Your task to perform on an android device: open device folders in google photos Image 0: 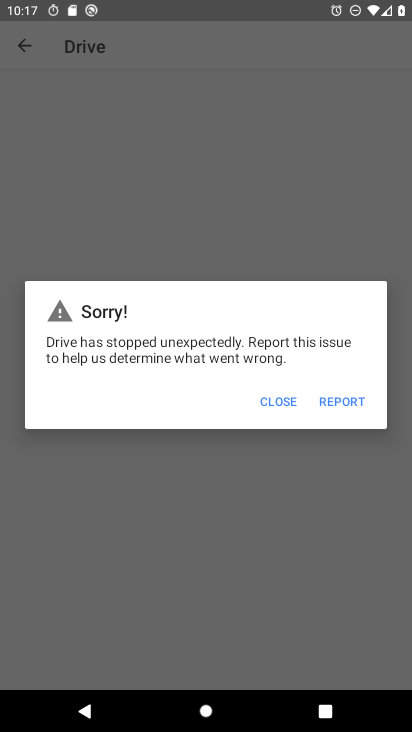
Step 0: press home button
Your task to perform on an android device: open device folders in google photos Image 1: 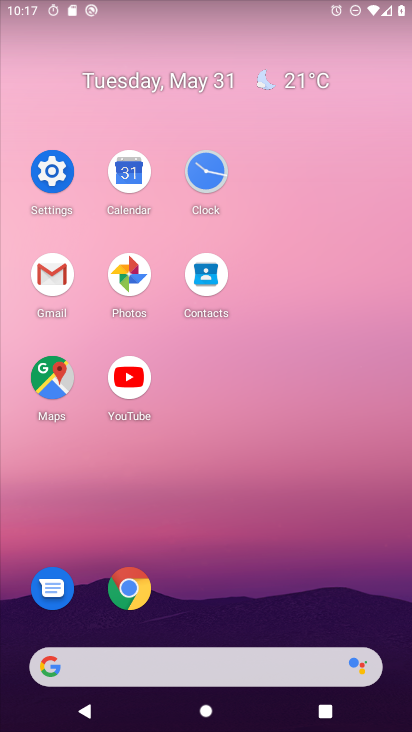
Step 1: click (133, 279)
Your task to perform on an android device: open device folders in google photos Image 2: 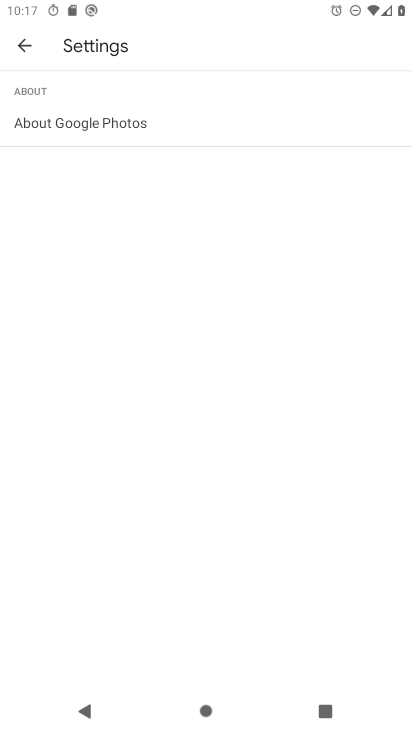
Step 2: click (22, 35)
Your task to perform on an android device: open device folders in google photos Image 3: 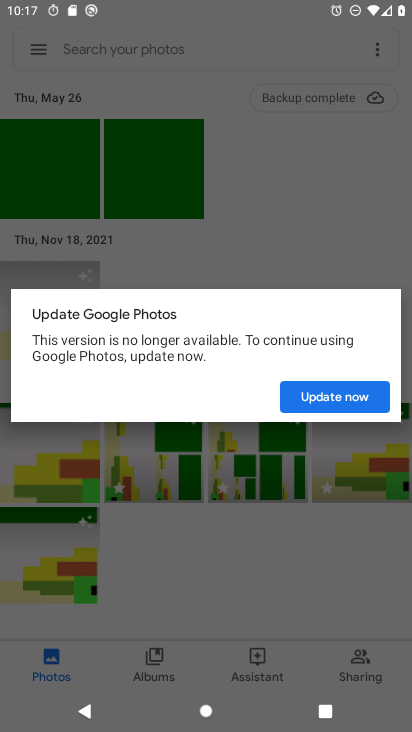
Step 3: click (29, 39)
Your task to perform on an android device: open device folders in google photos Image 4: 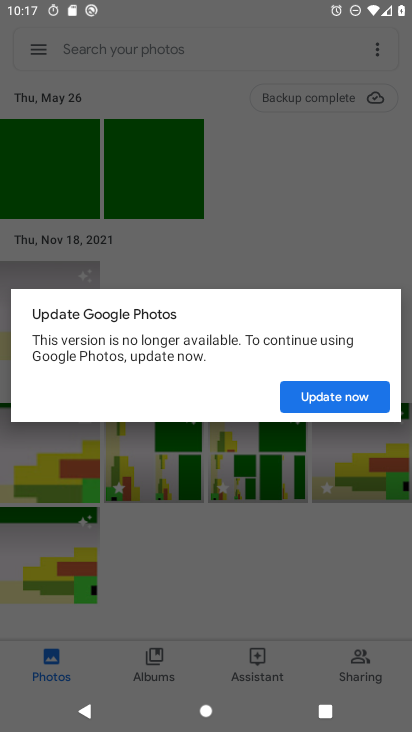
Step 4: click (362, 179)
Your task to perform on an android device: open device folders in google photos Image 5: 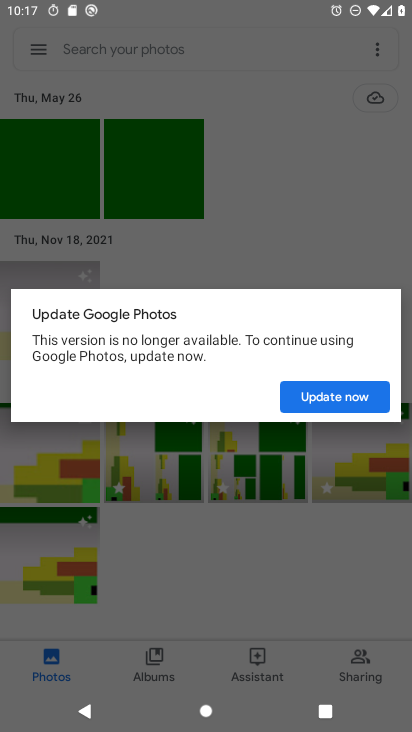
Step 5: click (329, 398)
Your task to perform on an android device: open device folders in google photos Image 6: 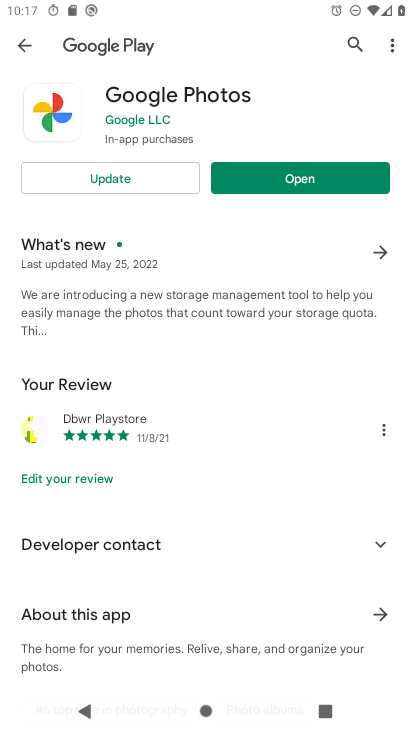
Step 6: click (245, 176)
Your task to perform on an android device: open device folders in google photos Image 7: 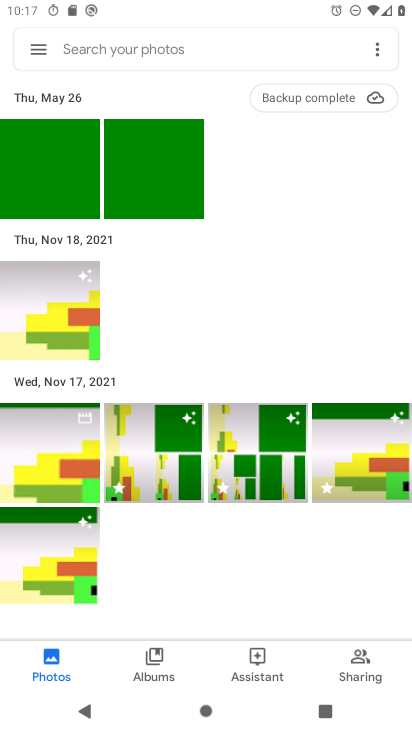
Step 7: click (29, 33)
Your task to perform on an android device: open device folders in google photos Image 8: 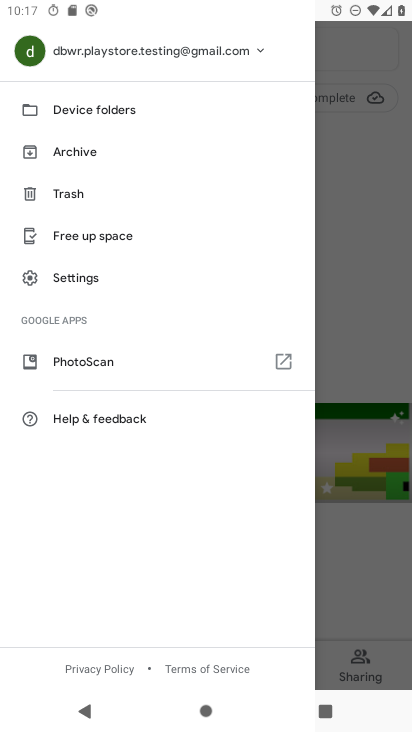
Step 8: click (85, 107)
Your task to perform on an android device: open device folders in google photos Image 9: 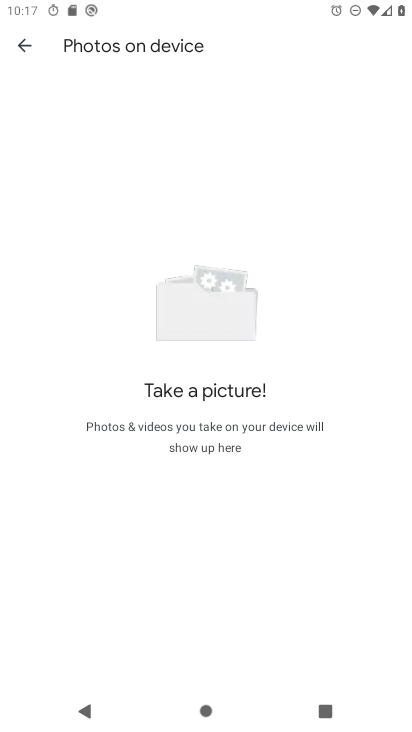
Step 9: task complete